Your task to perform on an android device: Open Reddit.com Image 0: 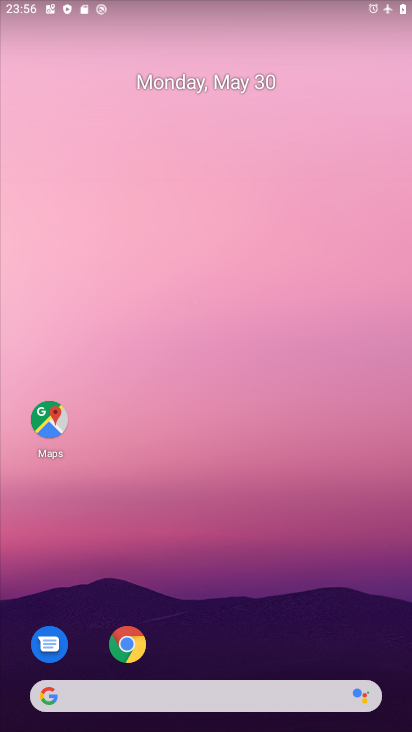
Step 0: click (131, 644)
Your task to perform on an android device: Open Reddit.com Image 1: 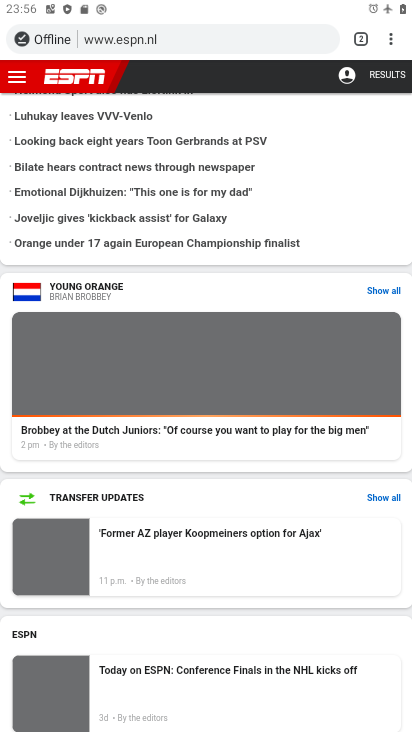
Step 1: click (190, 35)
Your task to perform on an android device: Open Reddit.com Image 2: 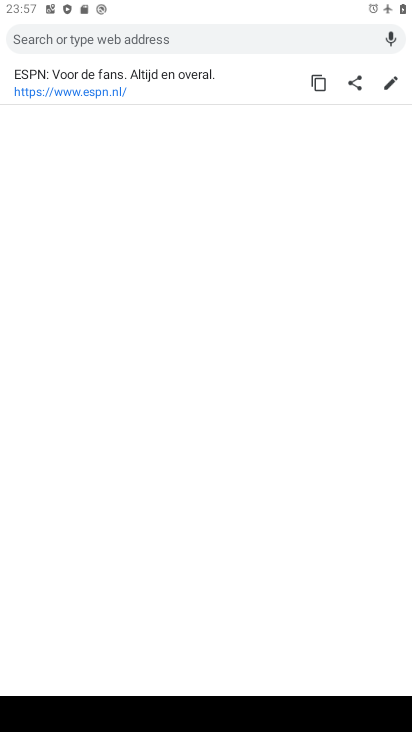
Step 2: type "reddit"
Your task to perform on an android device: Open Reddit.com Image 3: 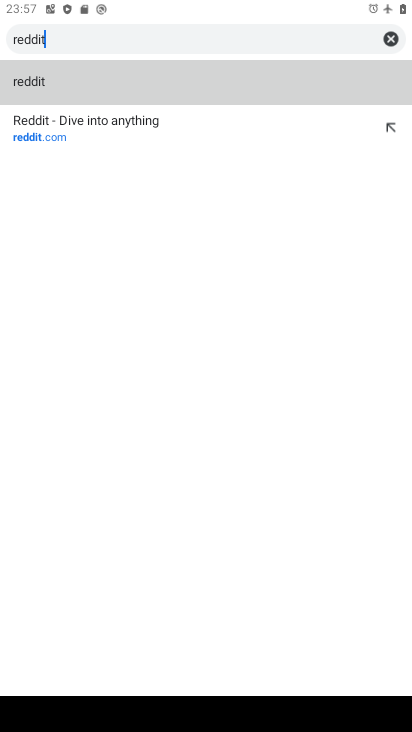
Step 3: click (72, 139)
Your task to perform on an android device: Open Reddit.com Image 4: 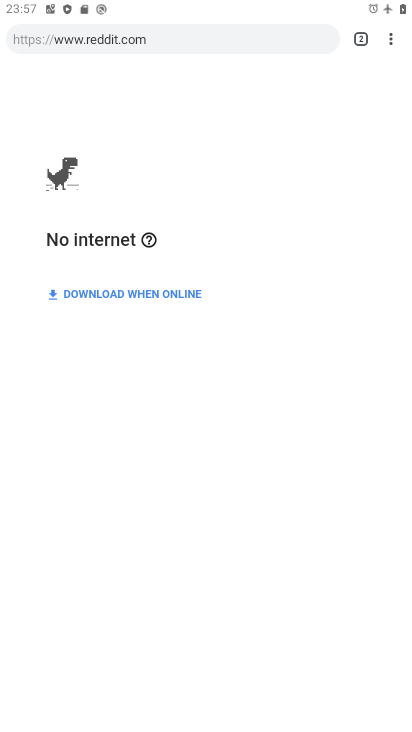
Step 4: task complete